Your task to perform on an android device: allow cookies in the chrome app Image 0: 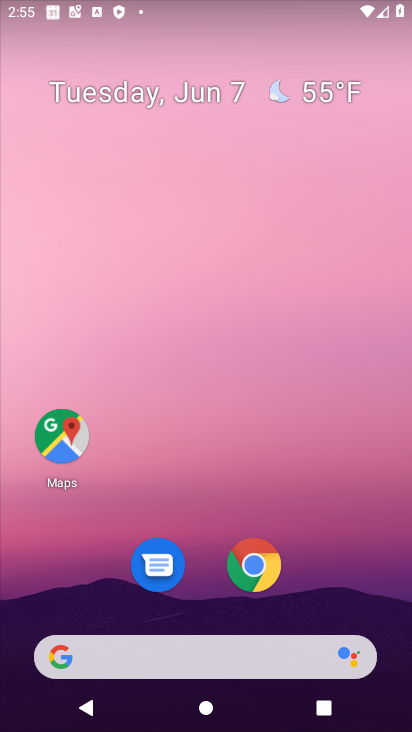
Step 0: drag from (248, 604) to (252, 16)
Your task to perform on an android device: allow cookies in the chrome app Image 1: 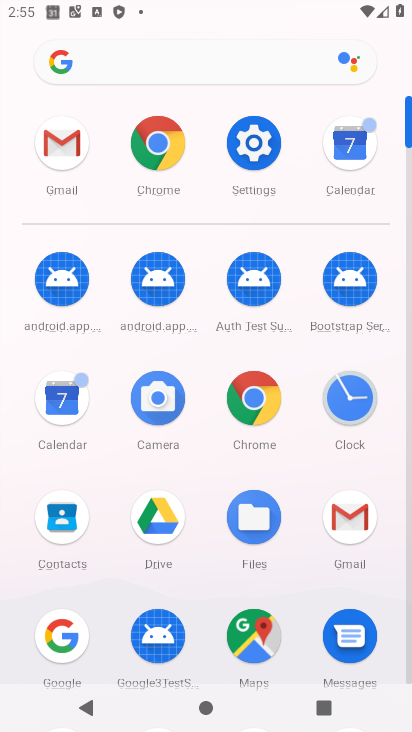
Step 1: click (250, 403)
Your task to perform on an android device: allow cookies in the chrome app Image 2: 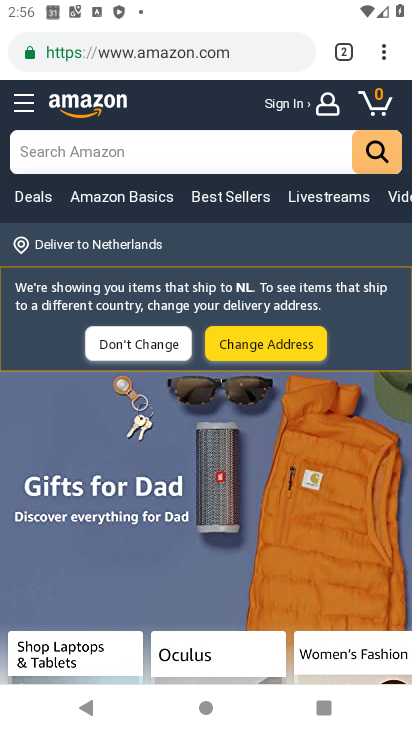
Step 2: drag from (383, 53) to (207, 624)
Your task to perform on an android device: allow cookies in the chrome app Image 3: 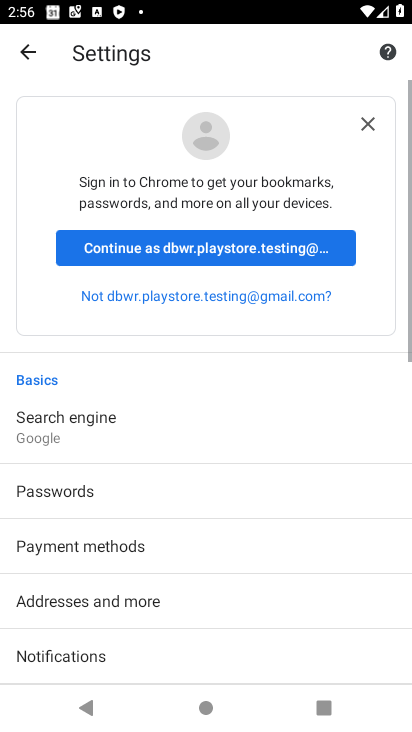
Step 3: drag from (208, 657) to (233, 193)
Your task to perform on an android device: allow cookies in the chrome app Image 4: 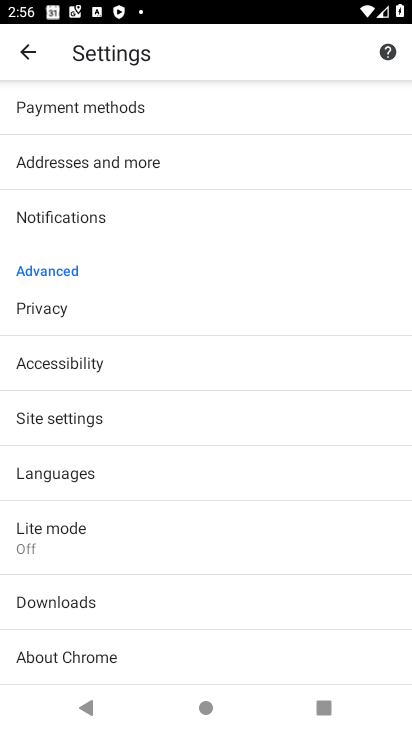
Step 4: click (93, 415)
Your task to perform on an android device: allow cookies in the chrome app Image 5: 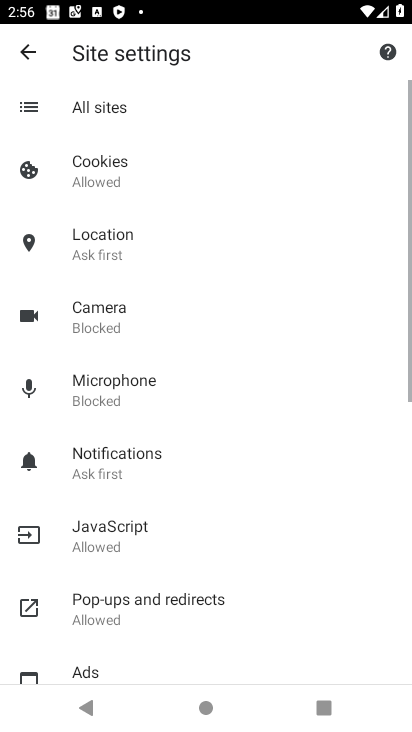
Step 5: click (121, 169)
Your task to perform on an android device: allow cookies in the chrome app Image 6: 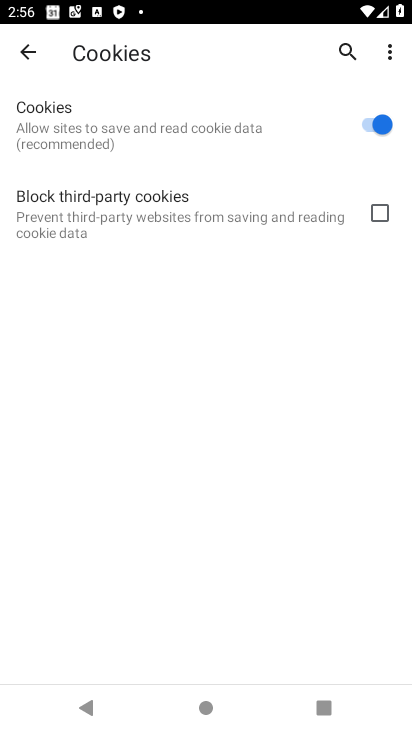
Step 6: task complete